Your task to perform on an android device: install app "DoorDash - Food Delivery" Image 0: 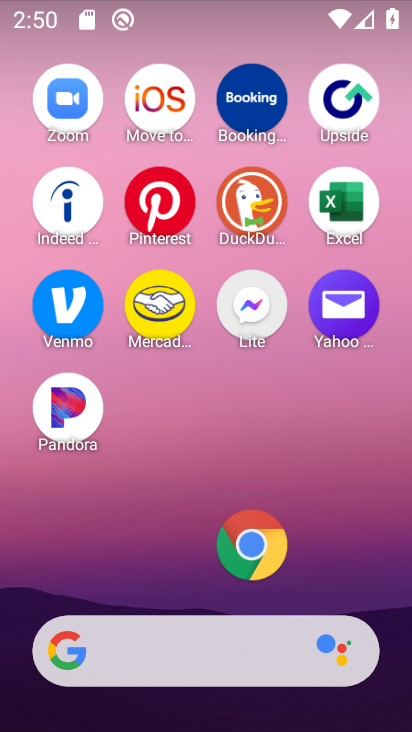
Step 0: drag from (149, 548) to (166, 139)
Your task to perform on an android device: install app "DoorDash - Food Delivery" Image 1: 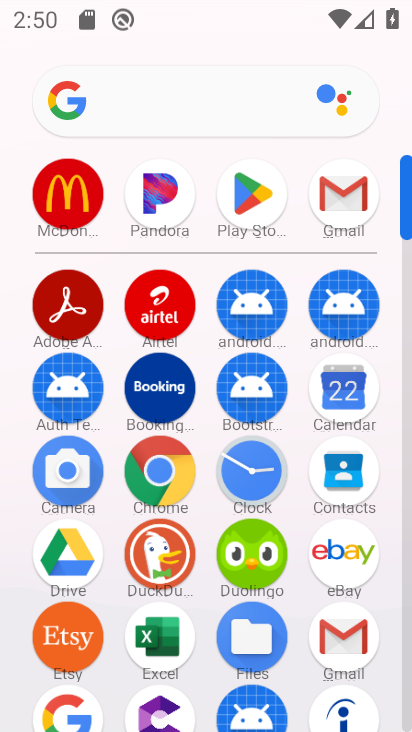
Step 1: click (253, 194)
Your task to perform on an android device: install app "DoorDash - Food Delivery" Image 2: 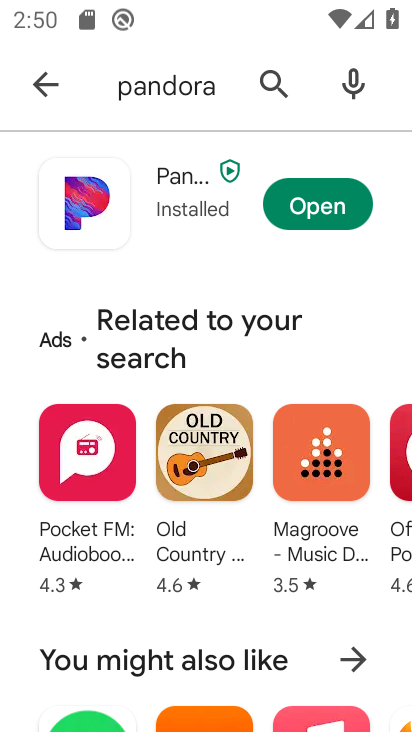
Step 2: click (284, 86)
Your task to perform on an android device: install app "DoorDash - Food Delivery" Image 3: 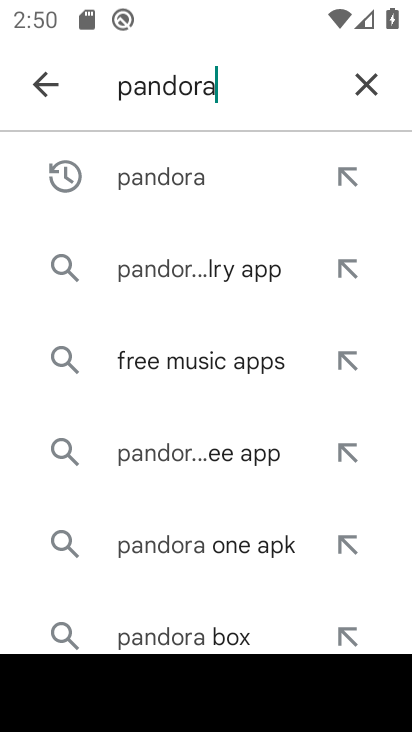
Step 3: click (358, 79)
Your task to perform on an android device: install app "DoorDash - Food Delivery" Image 4: 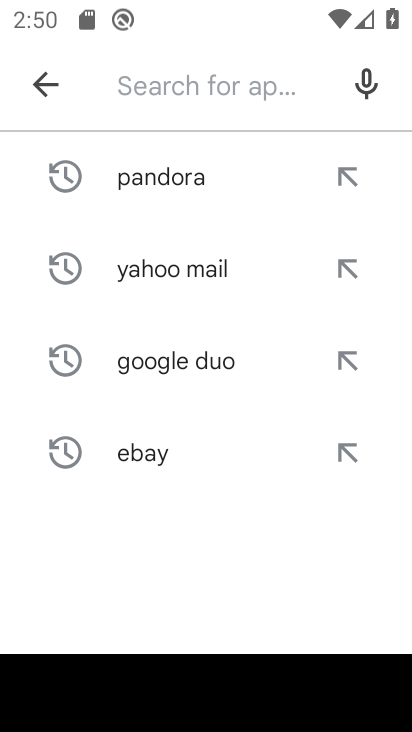
Step 4: click (135, 95)
Your task to perform on an android device: install app "DoorDash - Food Delivery" Image 5: 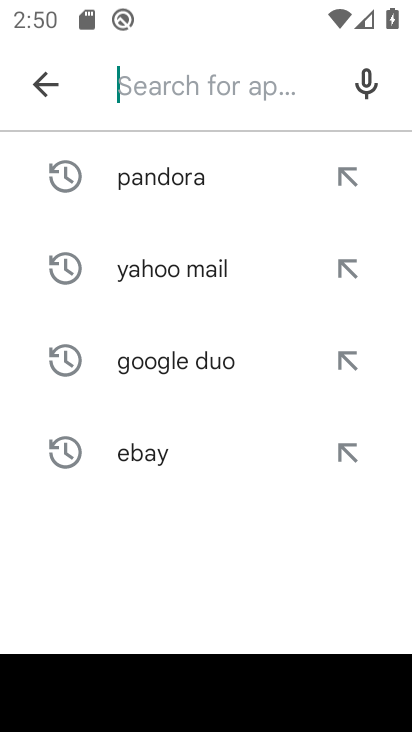
Step 5: click (87, 82)
Your task to perform on an android device: install app "DoorDash - Food Delivery" Image 6: 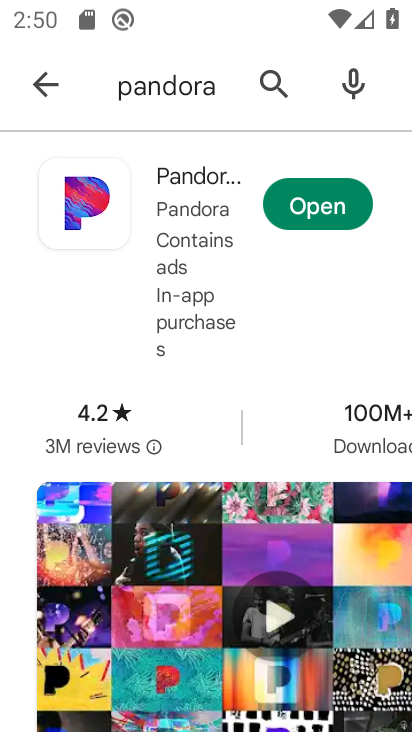
Step 6: type "DoorDash"
Your task to perform on an android device: install app "DoorDash - Food Delivery" Image 7: 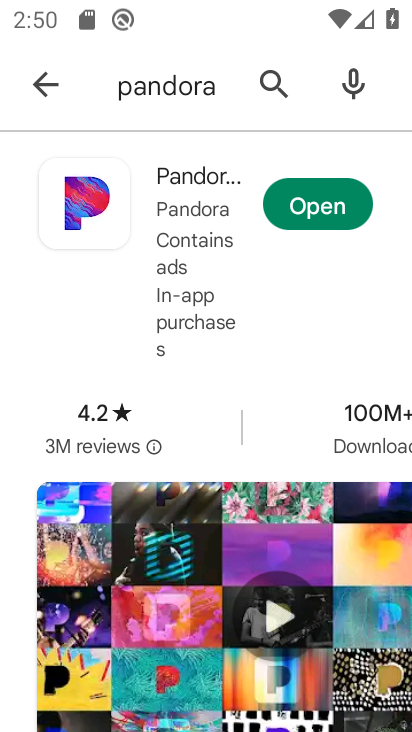
Step 7: click (268, 70)
Your task to perform on an android device: install app "DoorDash - Food Delivery" Image 8: 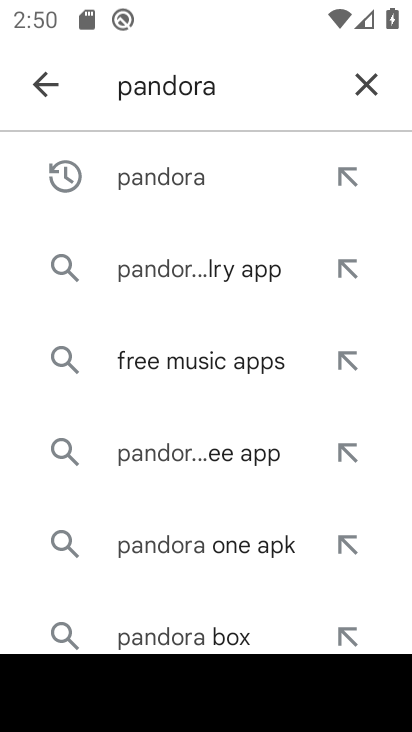
Step 8: click (363, 76)
Your task to perform on an android device: install app "DoorDash - Food Delivery" Image 9: 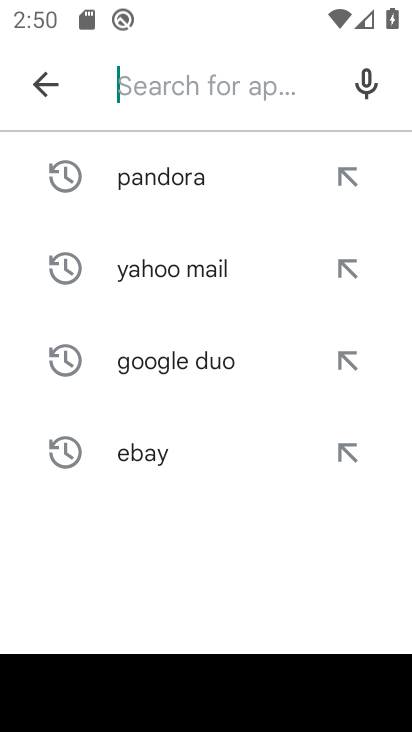
Step 9: click (159, 523)
Your task to perform on an android device: install app "DoorDash - Food Delivery" Image 10: 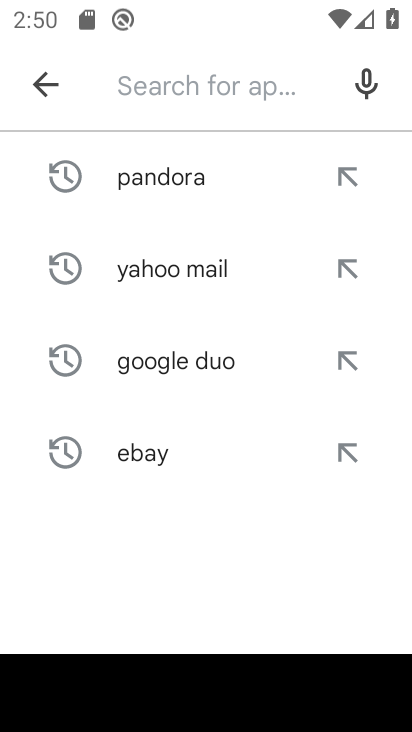
Step 10: type "DoorDash"
Your task to perform on an android device: install app "DoorDash - Food Delivery" Image 11: 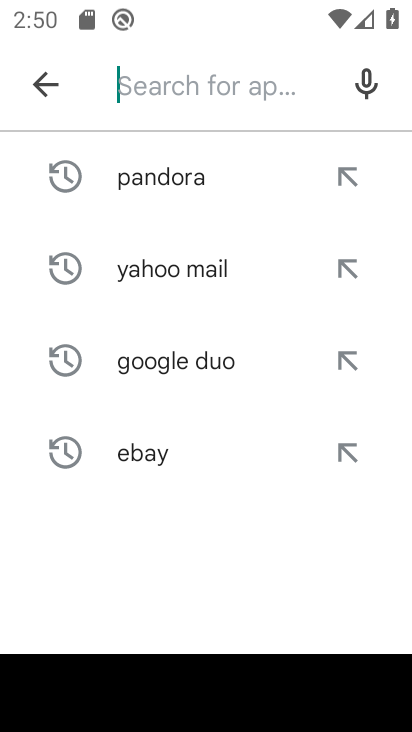
Step 11: click (77, 601)
Your task to perform on an android device: install app "DoorDash - Food Delivery" Image 12: 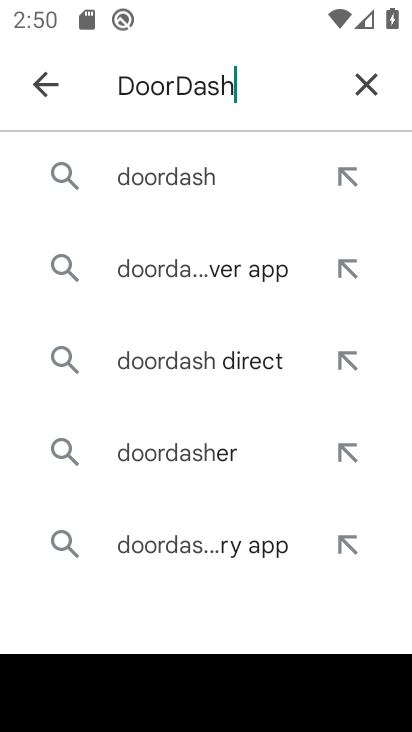
Step 12: click (135, 173)
Your task to perform on an android device: install app "DoorDash - Food Delivery" Image 13: 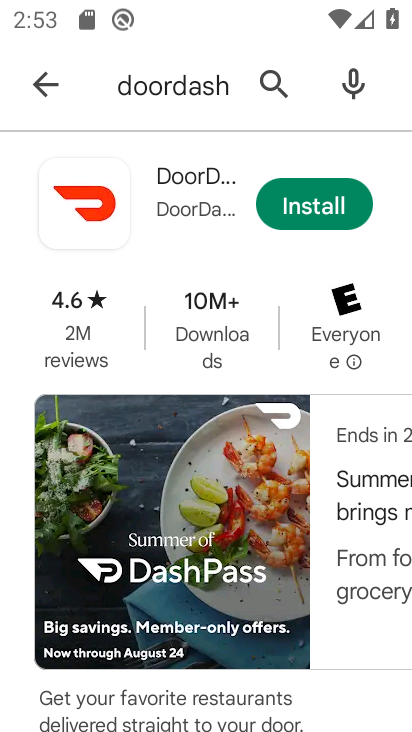
Step 13: click (307, 210)
Your task to perform on an android device: install app "DoorDash - Food Delivery" Image 14: 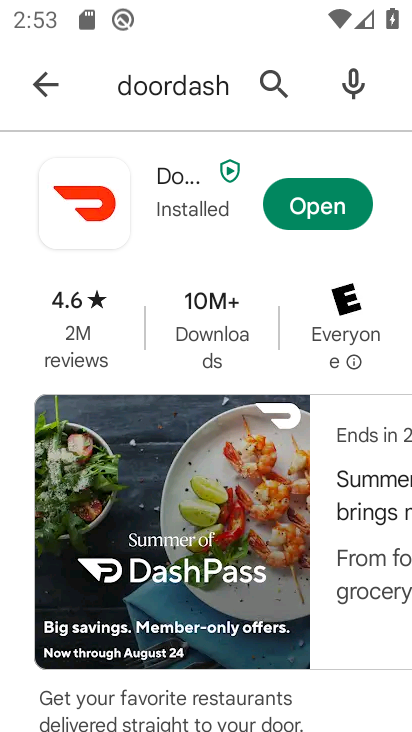
Step 14: task complete